Your task to perform on an android device: turn on the 12-hour format for clock Image 0: 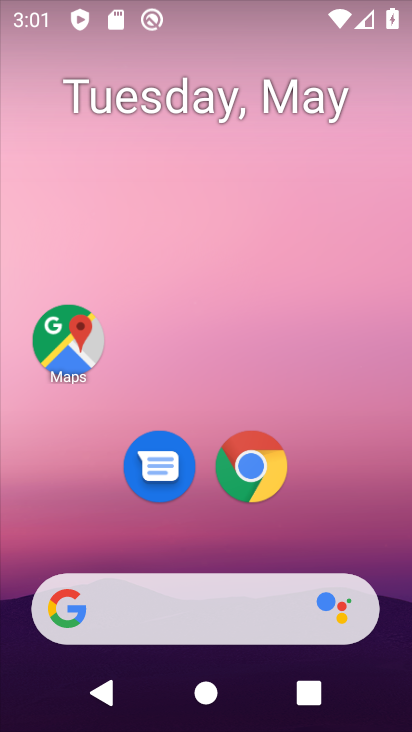
Step 0: click (329, 222)
Your task to perform on an android device: turn on the 12-hour format for clock Image 1: 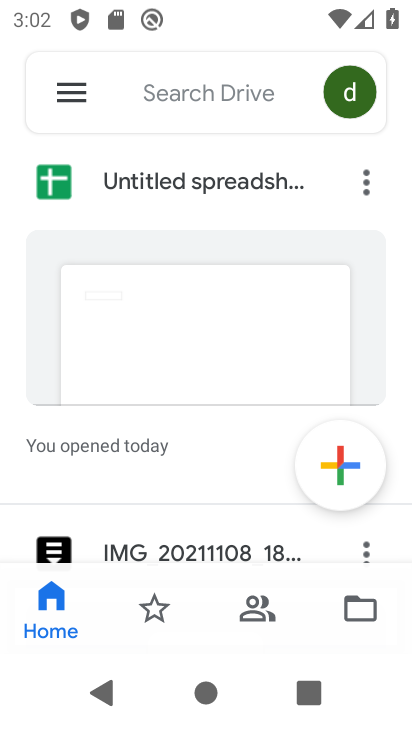
Step 1: press home button
Your task to perform on an android device: turn on the 12-hour format for clock Image 2: 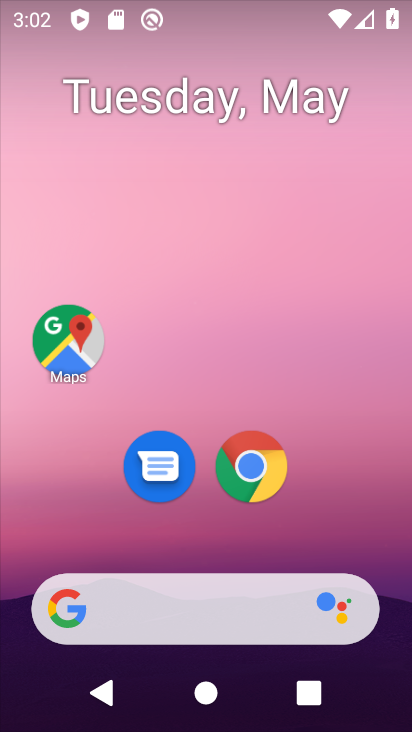
Step 2: drag from (300, 510) to (305, 260)
Your task to perform on an android device: turn on the 12-hour format for clock Image 3: 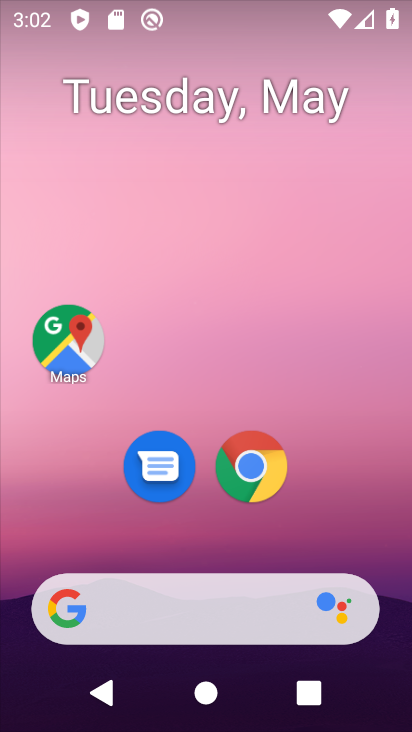
Step 3: drag from (314, 518) to (326, 324)
Your task to perform on an android device: turn on the 12-hour format for clock Image 4: 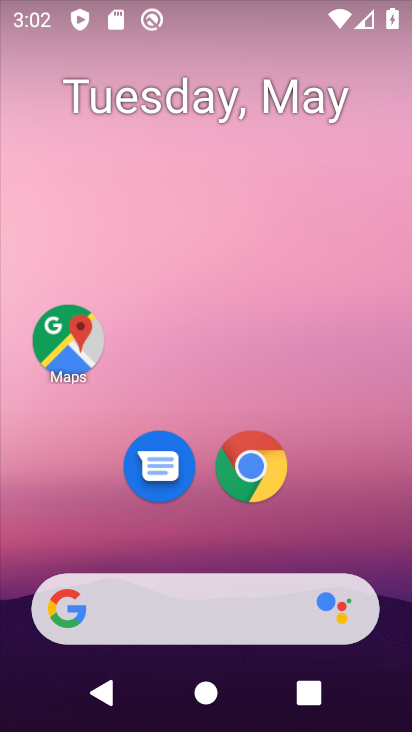
Step 4: drag from (274, 534) to (281, 213)
Your task to perform on an android device: turn on the 12-hour format for clock Image 5: 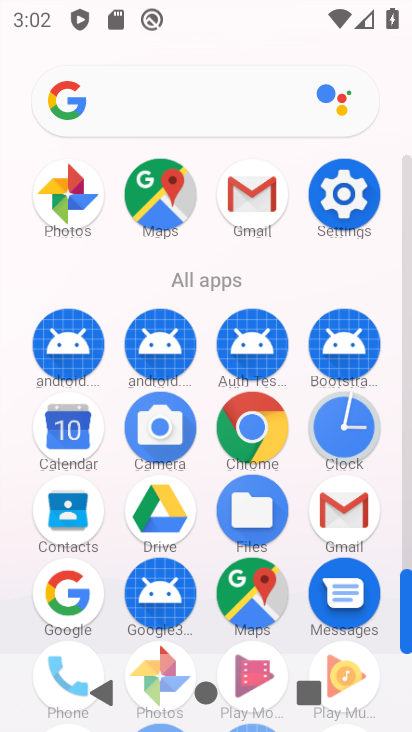
Step 5: click (341, 420)
Your task to perform on an android device: turn on the 12-hour format for clock Image 6: 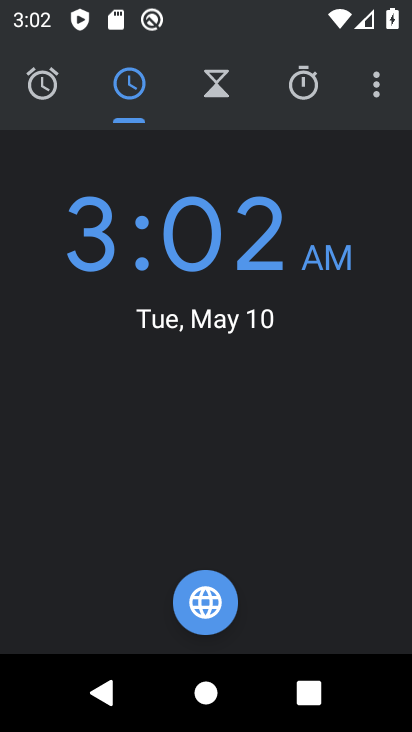
Step 6: click (366, 80)
Your task to perform on an android device: turn on the 12-hour format for clock Image 7: 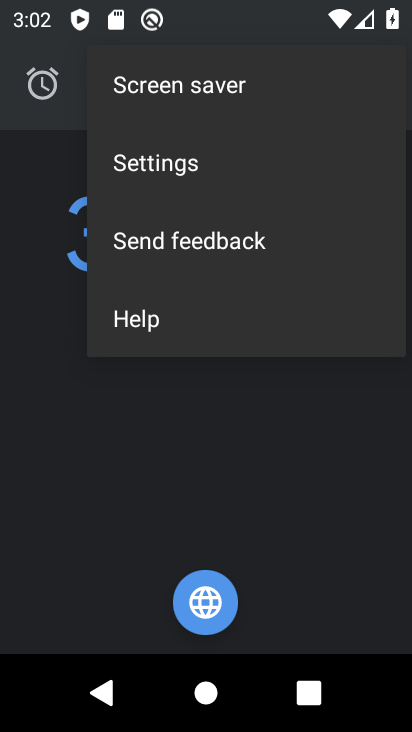
Step 7: click (206, 149)
Your task to perform on an android device: turn on the 12-hour format for clock Image 8: 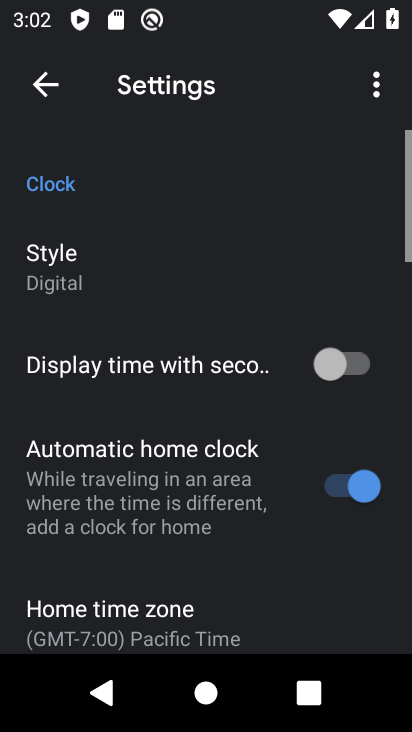
Step 8: drag from (235, 596) to (217, 211)
Your task to perform on an android device: turn on the 12-hour format for clock Image 9: 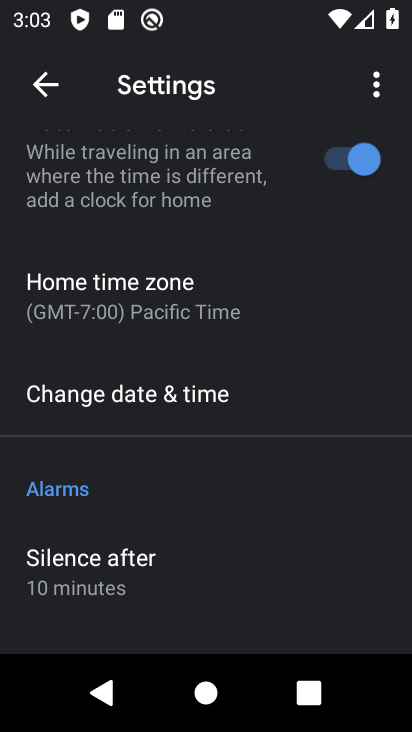
Step 9: click (152, 402)
Your task to perform on an android device: turn on the 12-hour format for clock Image 10: 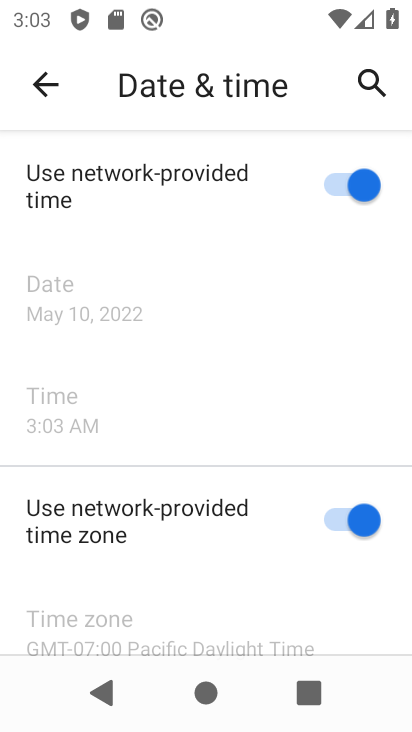
Step 10: drag from (226, 549) to (213, 383)
Your task to perform on an android device: turn on the 12-hour format for clock Image 11: 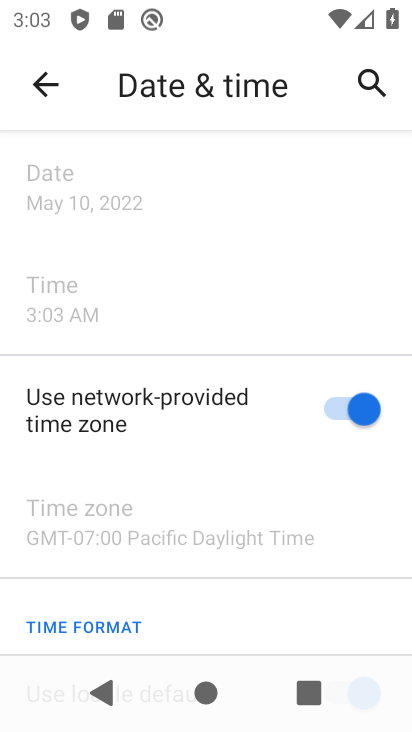
Step 11: click (328, 407)
Your task to perform on an android device: turn on the 12-hour format for clock Image 12: 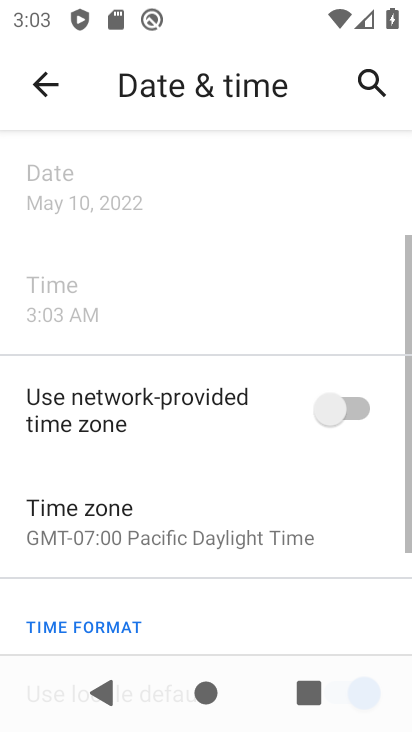
Step 12: drag from (254, 579) to (247, 241)
Your task to perform on an android device: turn on the 12-hour format for clock Image 13: 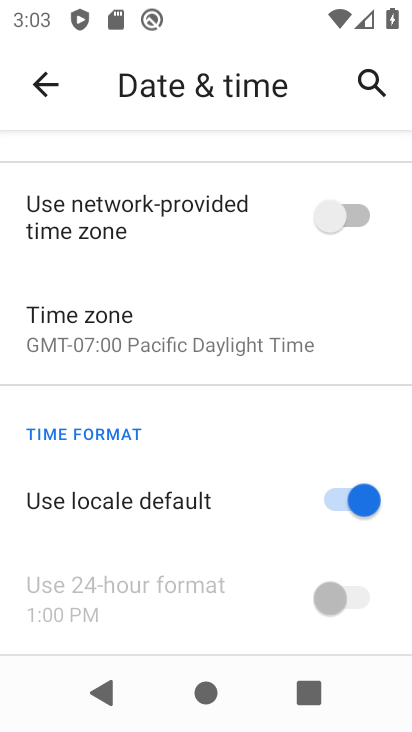
Step 13: click (342, 503)
Your task to perform on an android device: turn on the 12-hour format for clock Image 14: 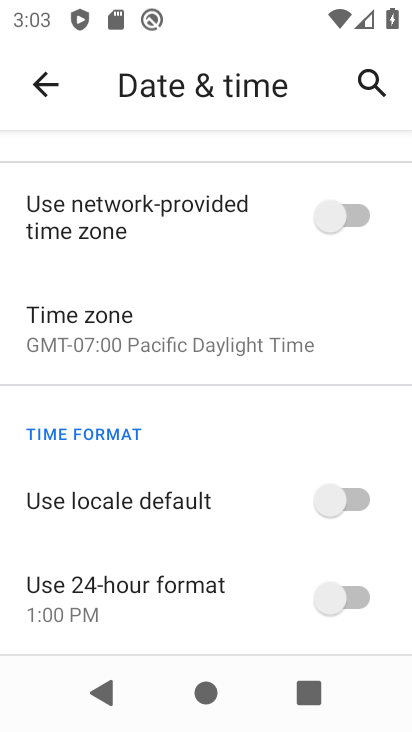
Step 14: click (342, 597)
Your task to perform on an android device: turn on the 12-hour format for clock Image 15: 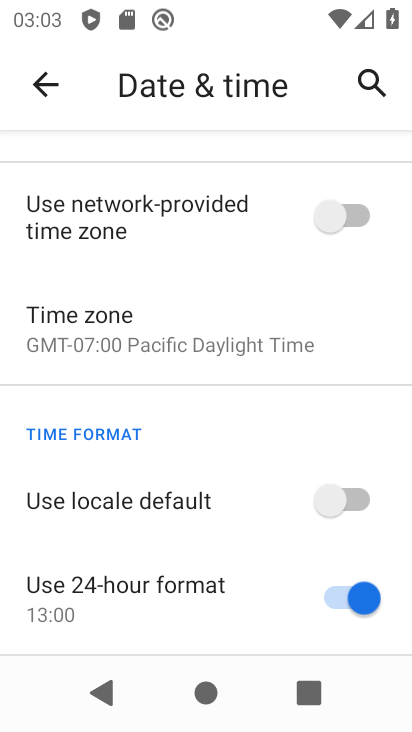
Step 15: task complete